Your task to perform on an android device: turn on the 12-hour format for clock Image 0: 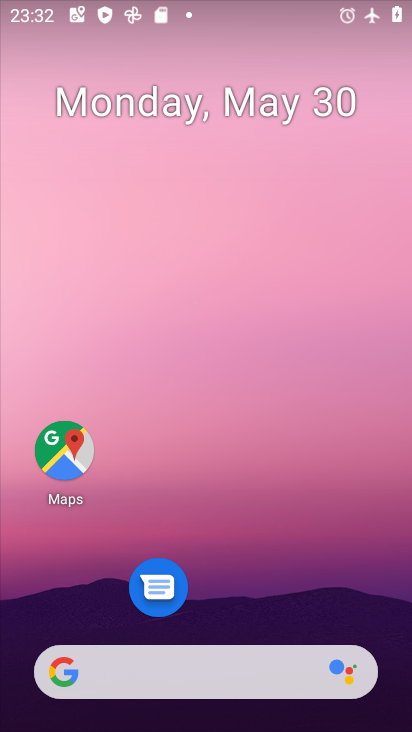
Step 0: drag from (209, 653) to (204, 38)
Your task to perform on an android device: turn on the 12-hour format for clock Image 1: 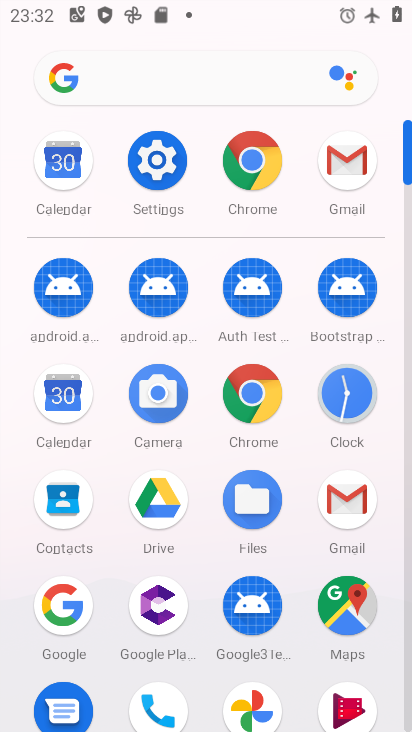
Step 1: click (362, 384)
Your task to perform on an android device: turn on the 12-hour format for clock Image 2: 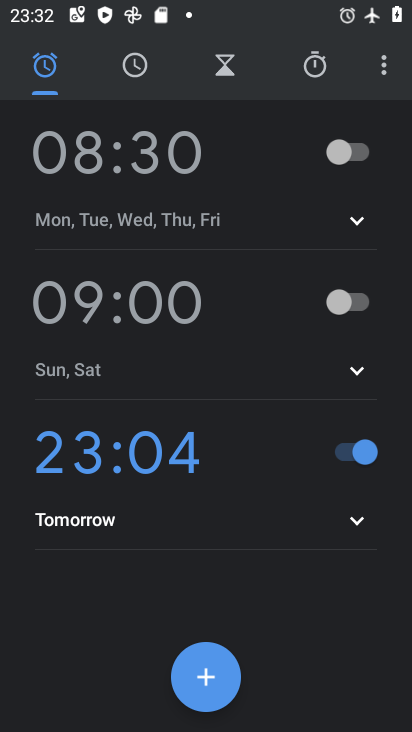
Step 2: click (384, 75)
Your task to perform on an android device: turn on the 12-hour format for clock Image 3: 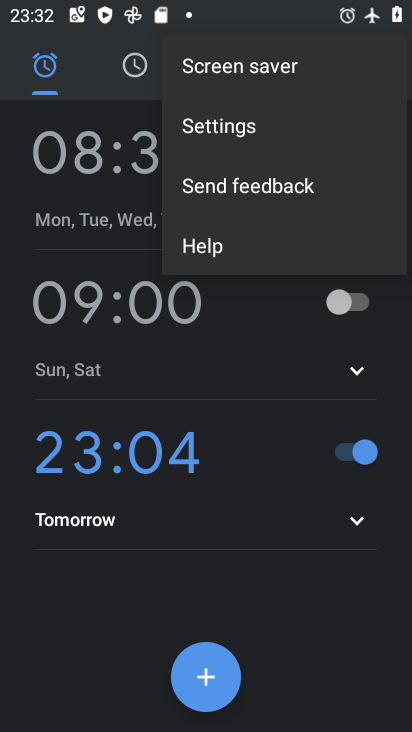
Step 3: click (237, 110)
Your task to perform on an android device: turn on the 12-hour format for clock Image 4: 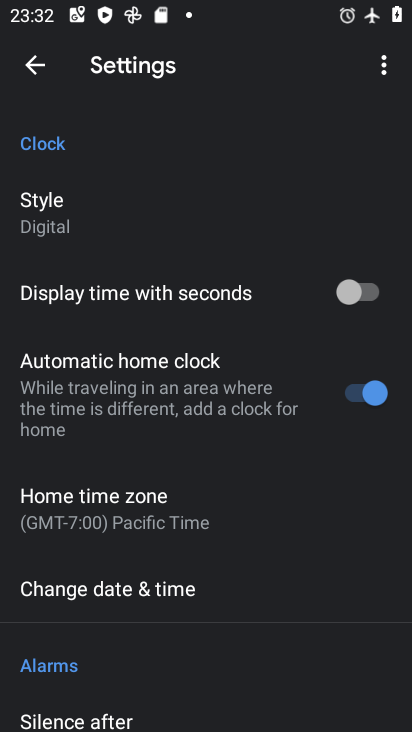
Step 4: click (130, 575)
Your task to perform on an android device: turn on the 12-hour format for clock Image 5: 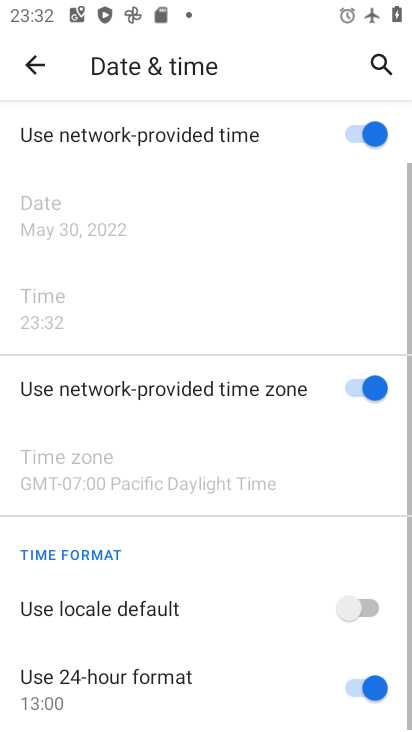
Step 5: drag from (131, 567) to (150, 188)
Your task to perform on an android device: turn on the 12-hour format for clock Image 6: 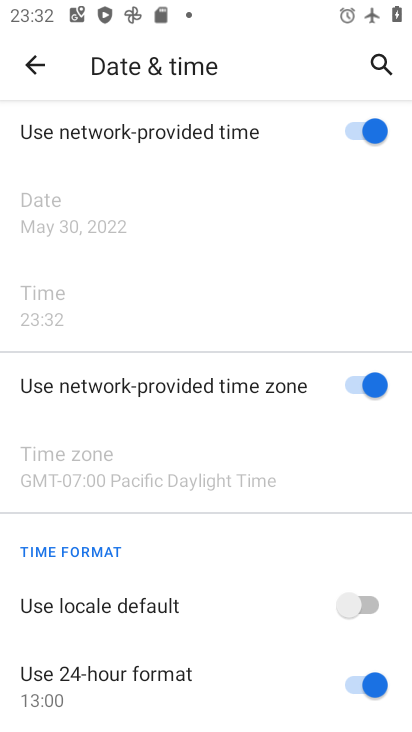
Step 6: click (359, 584)
Your task to perform on an android device: turn on the 12-hour format for clock Image 7: 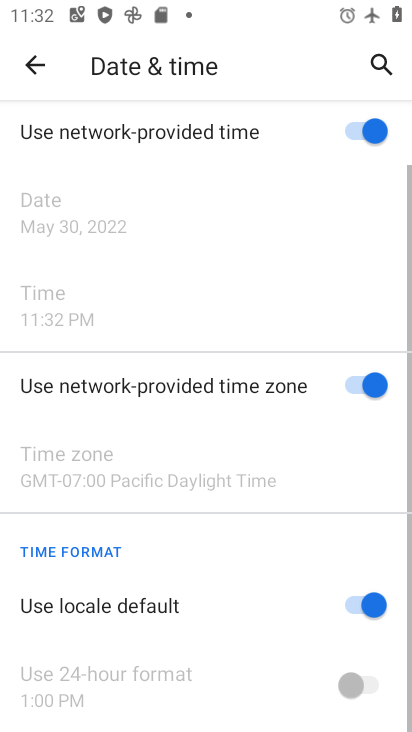
Step 7: click (373, 665)
Your task to perform on an android device: turn on the 12-hour format for clock Image 8: 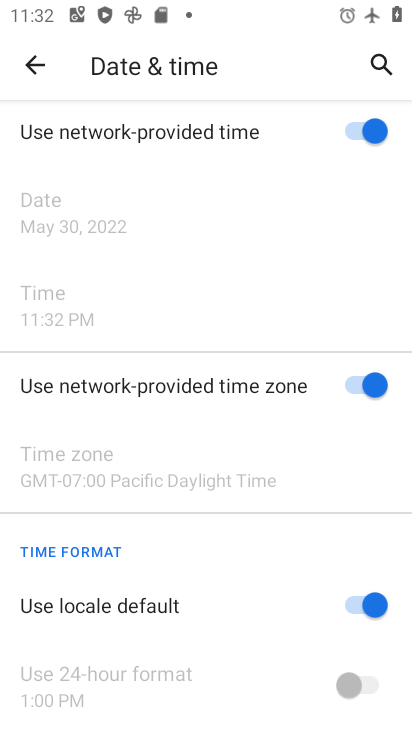
Step 8: task complete